Your task to perform on an android device: Show me the alarms in the clock app Image 0: 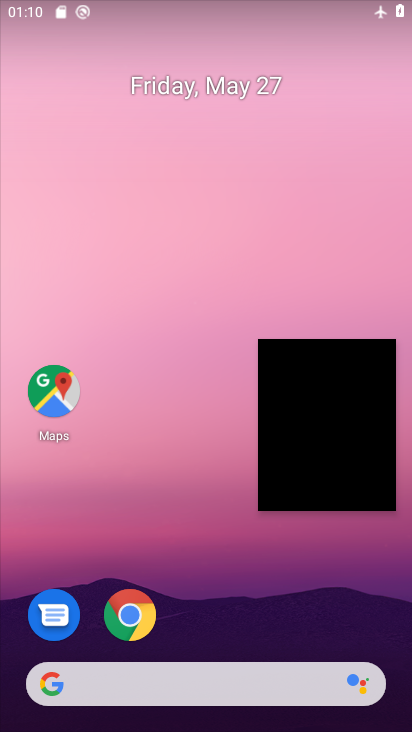
Step 0: drag from (318, 412) to (244, 729)
Your task to perform on an android device: Show me the alarms in the clock app Image 1: 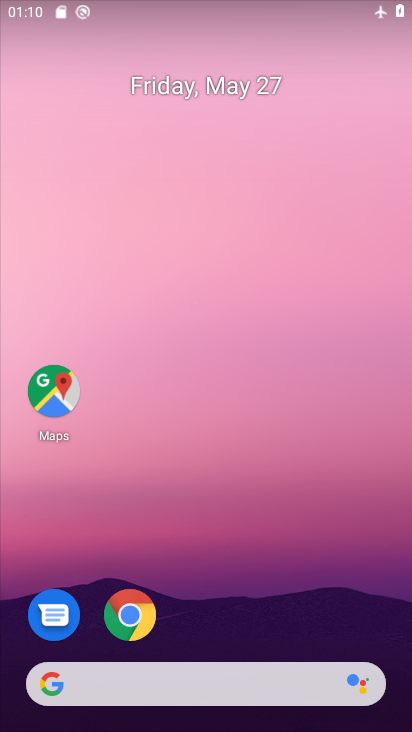
Step 1: drag from (337, 615) to (361, 218)
Your task to perform on an android device: Show me the alarms in the clock app Image 2: 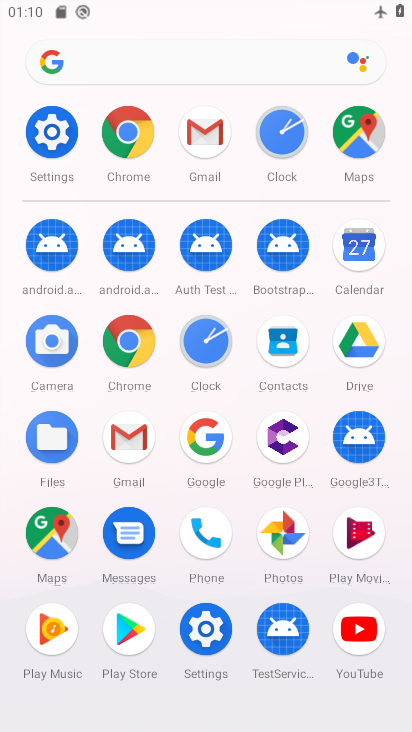
Step 2: click (201, 360)
Your task to perform on an android device: Show me the alarms in the clock app Image 3: 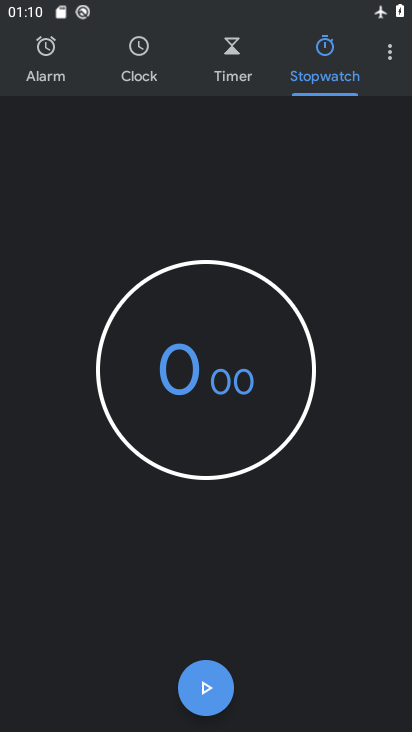
Step 3: click (41, 73)
Your task to perform on an android device: Show me the alarms in the clock app Image 4: 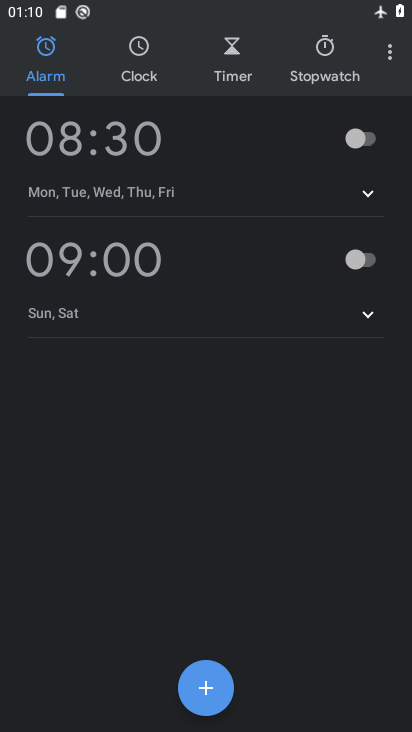
Step 4: task complete